Your task to perform on an android device: Show the shopping cart on costco.com. Add "macbook pro 13 inch" to the cart on costco.com Image 0: 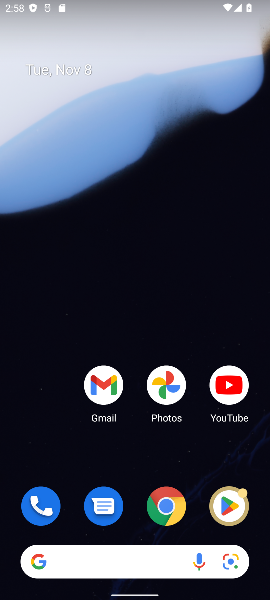
Step 0: click (167, 498)
Your task to perform on an android device: Show the shopping cart on costco.com. Add "macbook pro 13 inch" to the cart on costco.com Image 1: 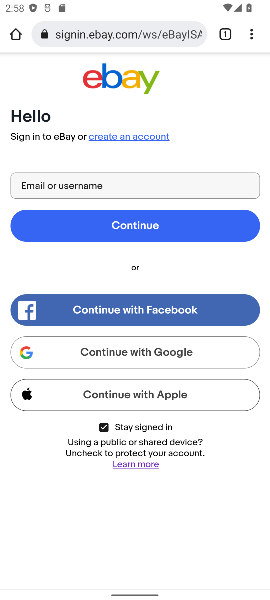
Step 1: click (141, 33)
Your task to perform on an android device: Show the shopping cart on costco.com. Add "macbook pro 13 inch" to the cart on costco.com Image 2: 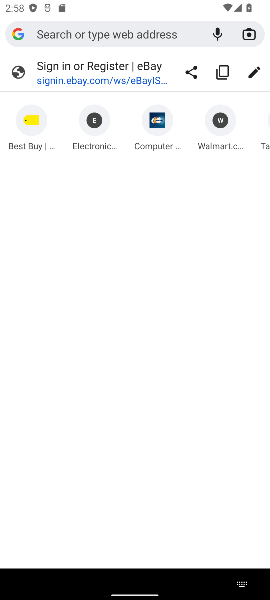
Step 2: type "costco.com"
Your task to perform on an android device: Show the shopping cart on costco.com. Add "macbook pro 13 inch" to the cart on costco.com Image 3: 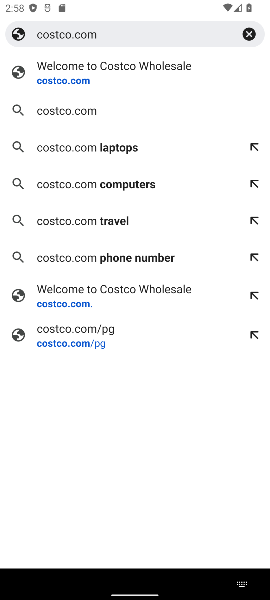
Step 3: click (167, 77)
Your task to perform on an android device: Show the shopping cart on costco.com. Add "macbook pro 13 inch" to the cart on costco.com Image 4: 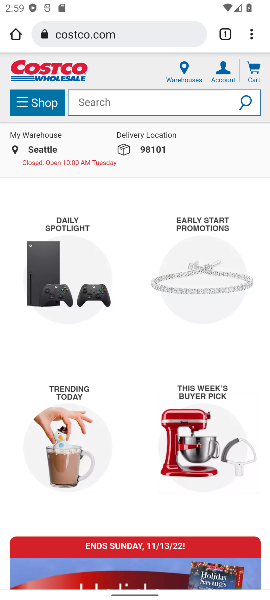
Step 4: click (148, 106)
Your task to perform on an android device: Show the shopping cart on costco.com. Add "macbook pro 13 inch" to the cart on costco.com Image 5: 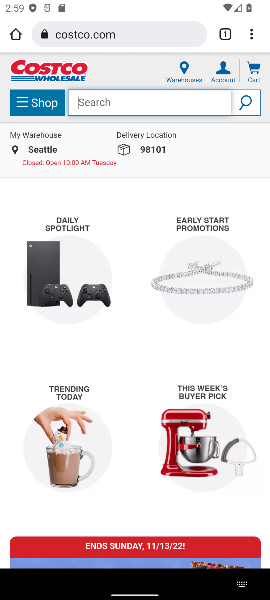
Step 5: type "macbook pro 13 inch"
Your task to perform on an android device: Show the shopping cart on costco.com. Add "macbook pro 13 inch" to the cart on costco.com Image 6: 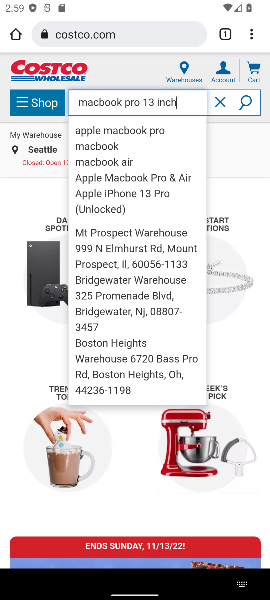
Step 6: click (133, 127)
Your task to perform on an android device: Show the shopping cart on costco.com. Add "macbook pro 13 inch" to the cart on costco.com Image 7: 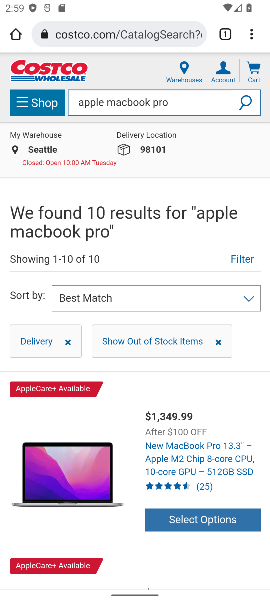
Step 7: click (204, 461)
Your task to perform on an android device: Show the shopping cart on costco.com. Add "macbook pro 13 inch" to the cart on costco.com Image 8: 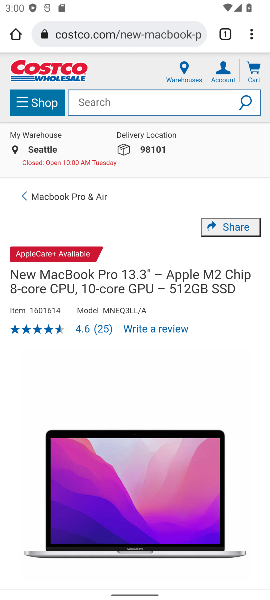
Step 8: drag from (198, 488) to (222, 223)
Your task to perform on an android device: Show the shopping cart on costco.com. Add "macbook pro 13 inch" to the cart on costco.com Image 9: 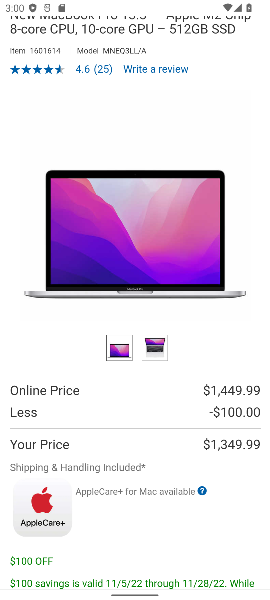
Step 9: drag from (216, 353) to (183, 30)
Your task to perform on an android device: Show the shopping cart on costco.com. Add "macbook pro 13 inch" to the cart on costco.com Image 10: 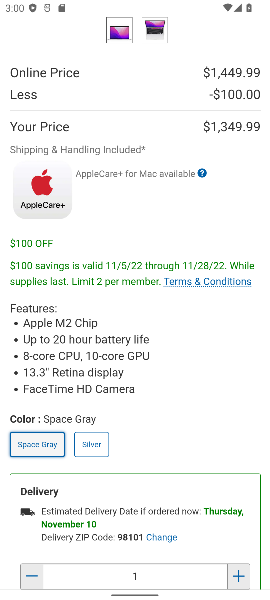
Step 10: drag from (114, 509) to (184, 5)
Your task to perform on an android device: Show the shopping cart on costco.com. Add "macbook pro 13 inch" to the cart on costco.com Image 11: 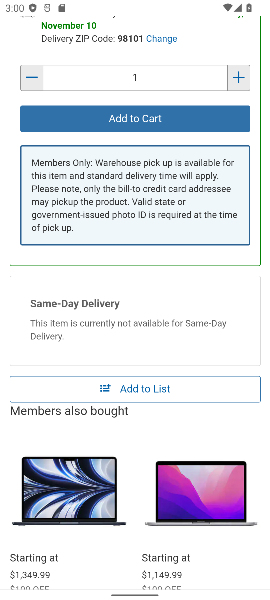
Step 11: click (187, 129)
Your task to perform on an android device: Show the shopping cart on costco.com. Add "macbook pro 13 inch" to the cart on costco.com Image 12: 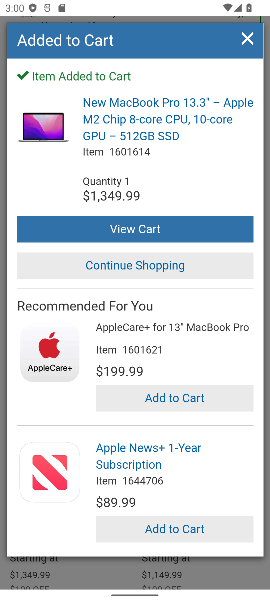
Step 12: task complete